Your task to perform on an android device: Open the stopwatch Image 0: 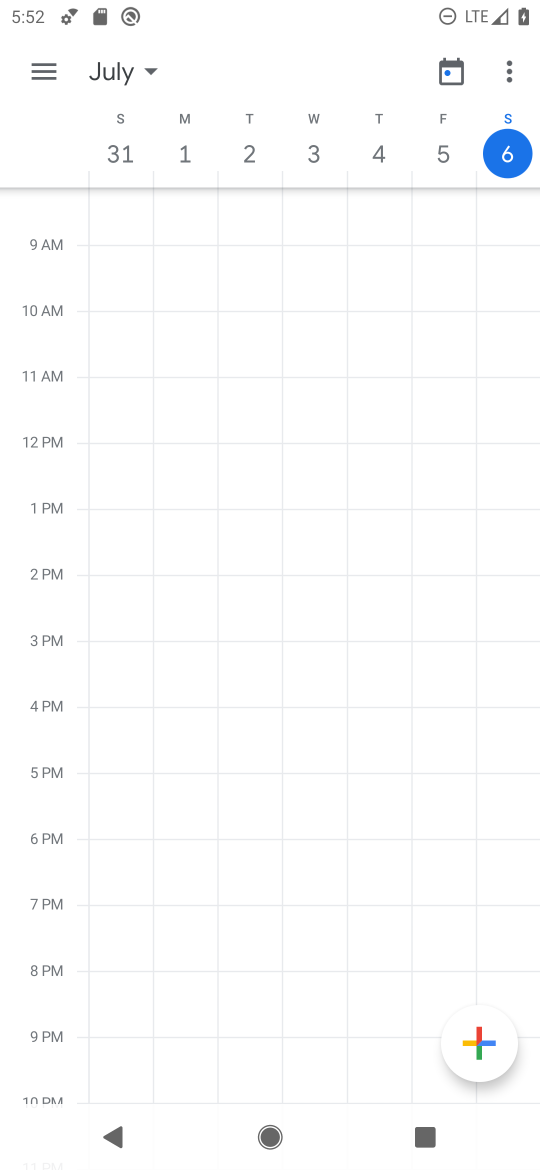
Step 0: press home button
Your task to perform on an android device: Open the stopwatch Image 1: 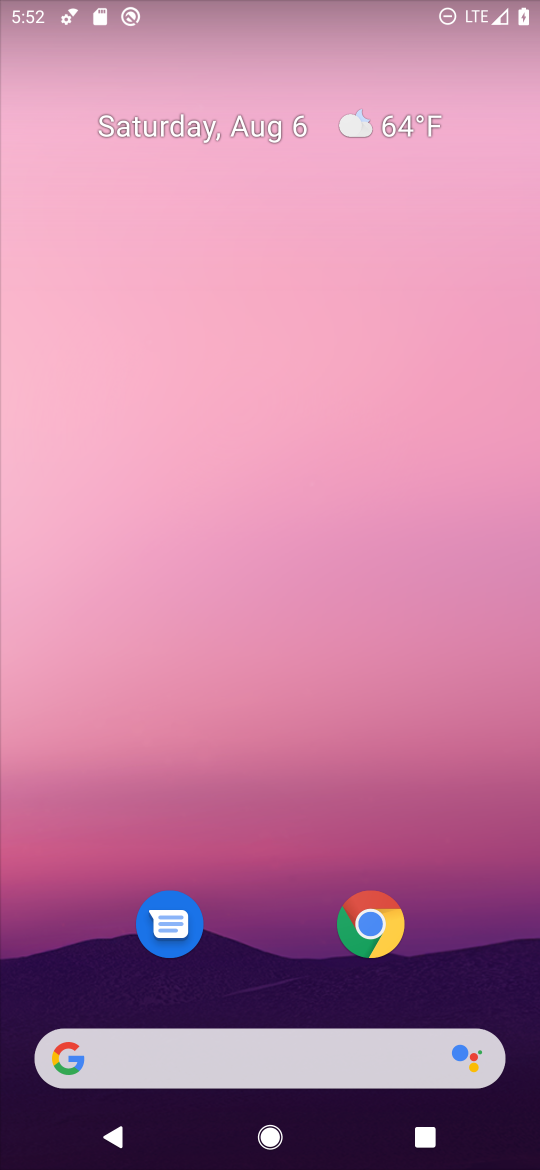
Step 1: drag from (212, 847) to (212, 72)
Your task to perform on an android device: Open the stopwatch Image 2: 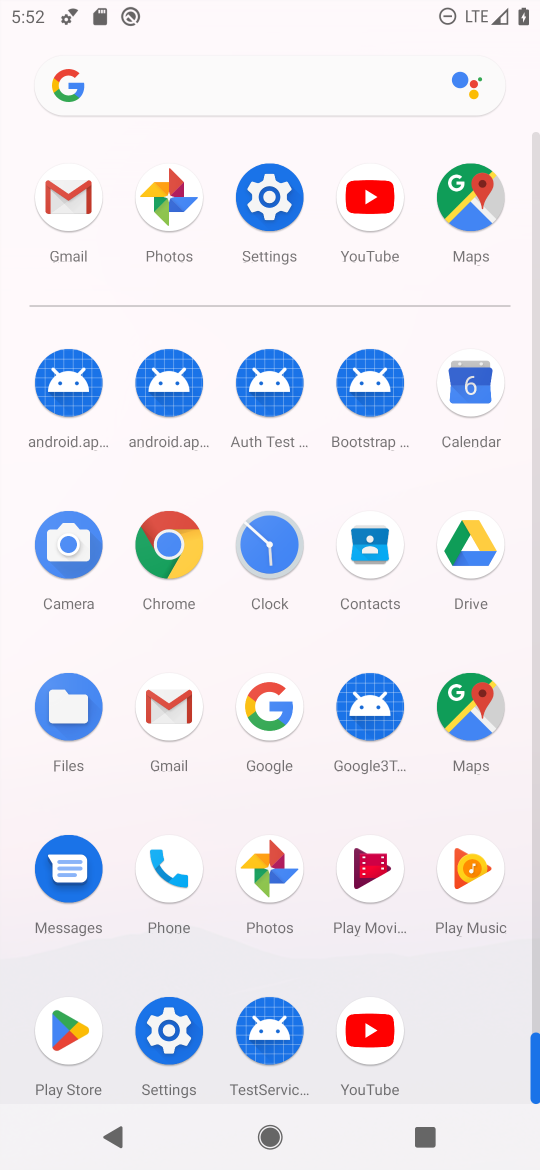
Step 2: click (269, 545)
Your task to perform on an android device: Open the stopwatch Image 3: 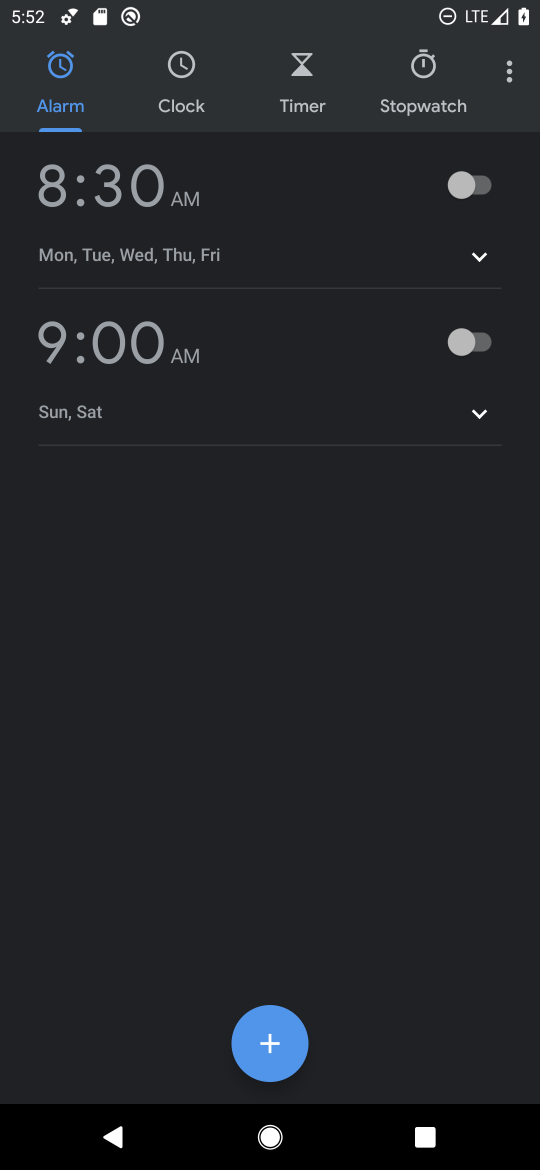
Step 3: click (425, 44)
Your task to perform on an android device: Open the stopwatch Image 4: 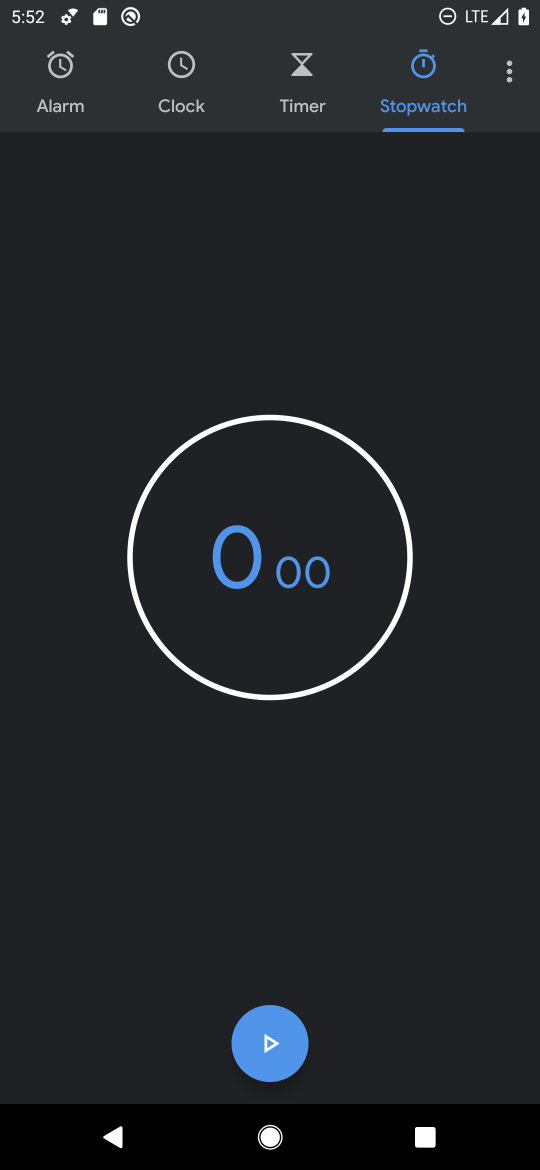
Step 4: task complete